Your task to perform on an android device: Open settings on Google Maps Image 0: 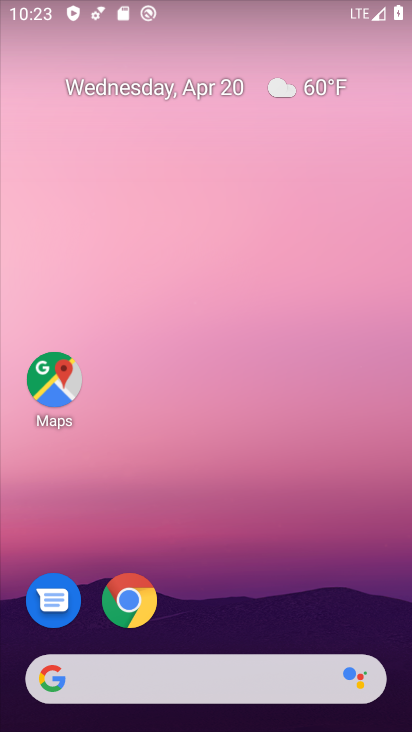
Step 0: drag from (262, 615) to (327, 180)
Your task to perform on an android device: Open settings on Google Maps Image 1: 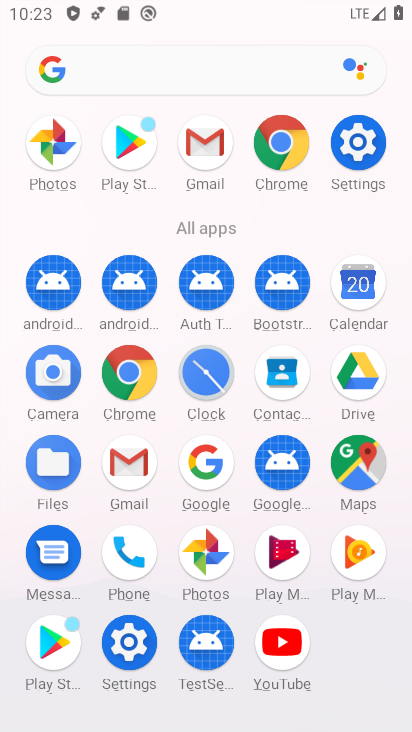
Step 1: click (350, 455)
Your task to perform on an android device: Open settings on Google Maps Image 2: 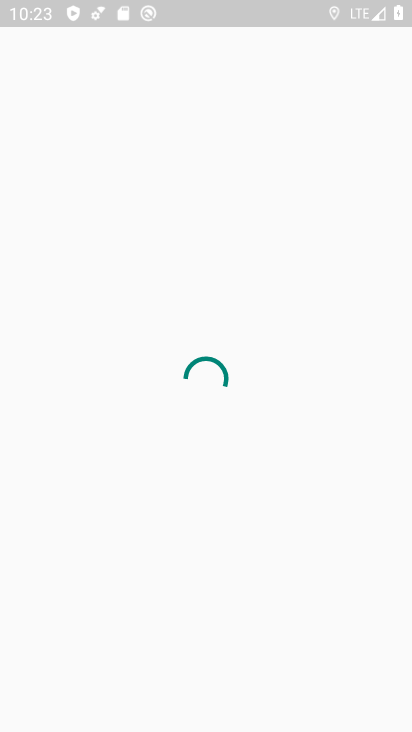
Step 2: click (27, 63)
Your task to perform on an android device: Open settings on Google Maps Image 3: 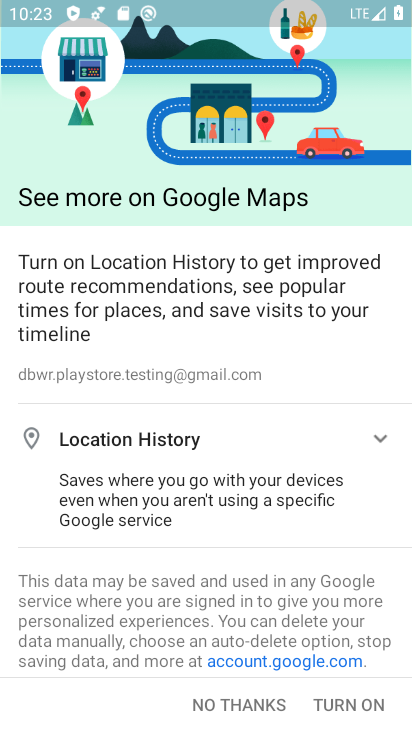
Step 3: click (250, 705)
Your task to perform on an android device: Open settings on Google Maps Image 4: 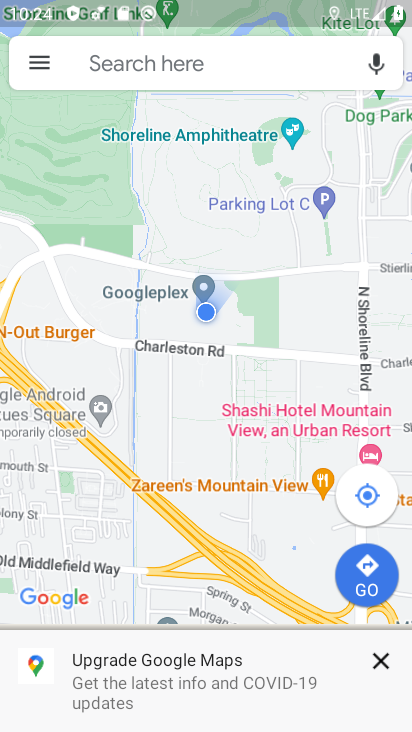
Step 4: click (42, 67)
Your task to perform on an android device: Open settings on Google Maps Image 5: 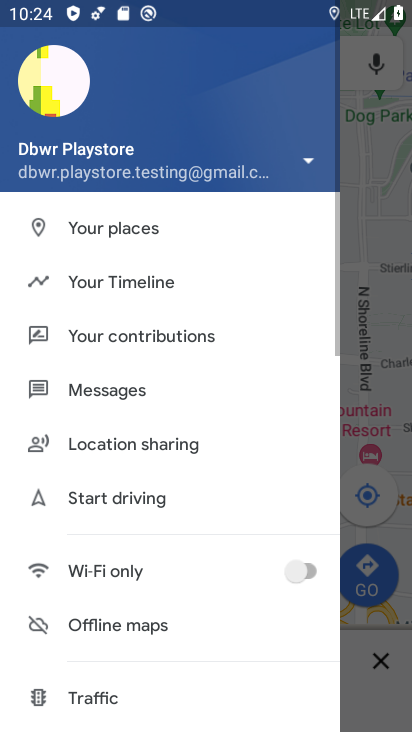
Step 5: drag from (146, 596) to (189, 53)
Your task to perform on an android device: Open settings on Google Maps Image 6: 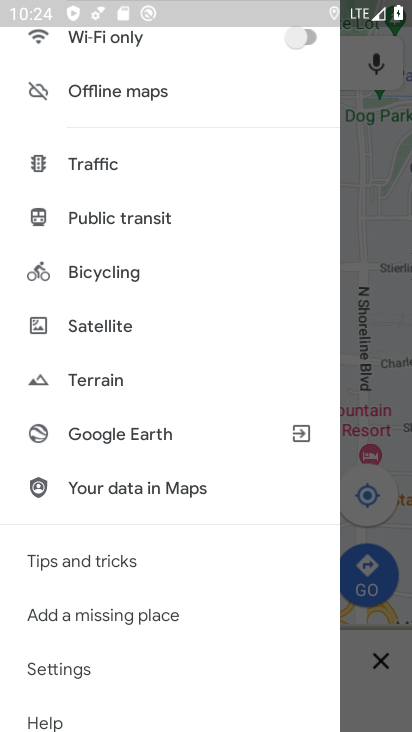
Step 6: click (61, 675)
Your task to perform on an android device: Open settings on Google Maps Image 7: 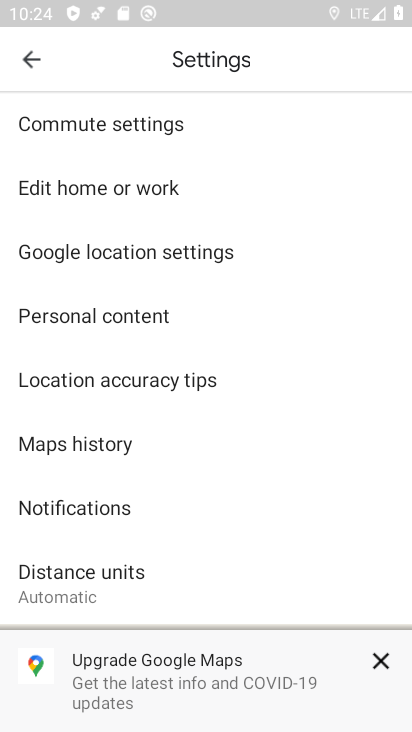
Step 7: task complete